Your task to perform on an android device: Search for jbl charge 4 on walmart.com, select the first entry, add it to the cart, then select checkout. Image 0: 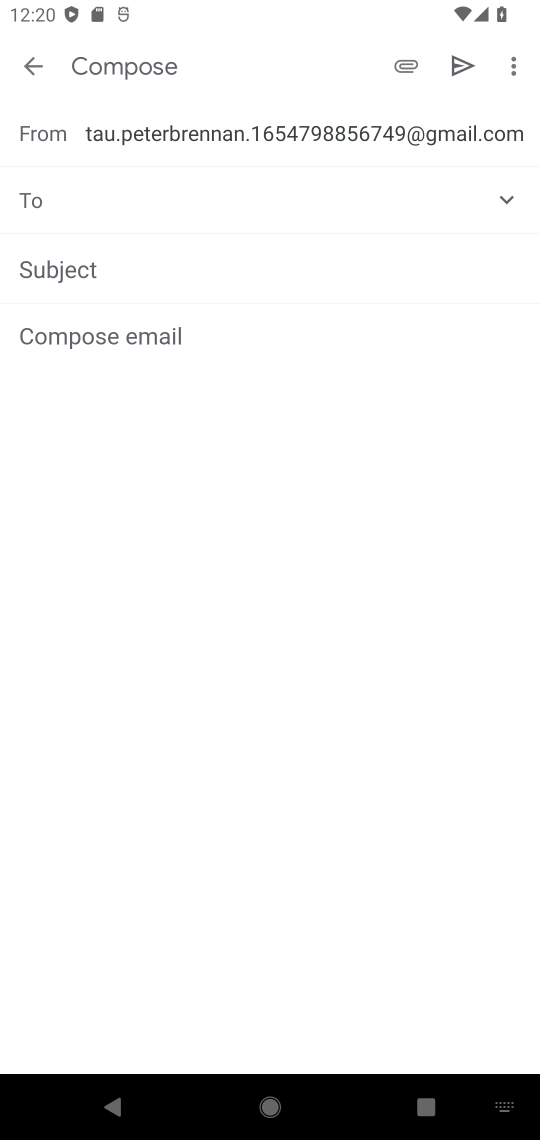
Step 0: press home button
Your task to perform on an android device: Search for jbl charge 4 on walmart.com, select the first entry, add it to the cart, then select checkout. Image 1: 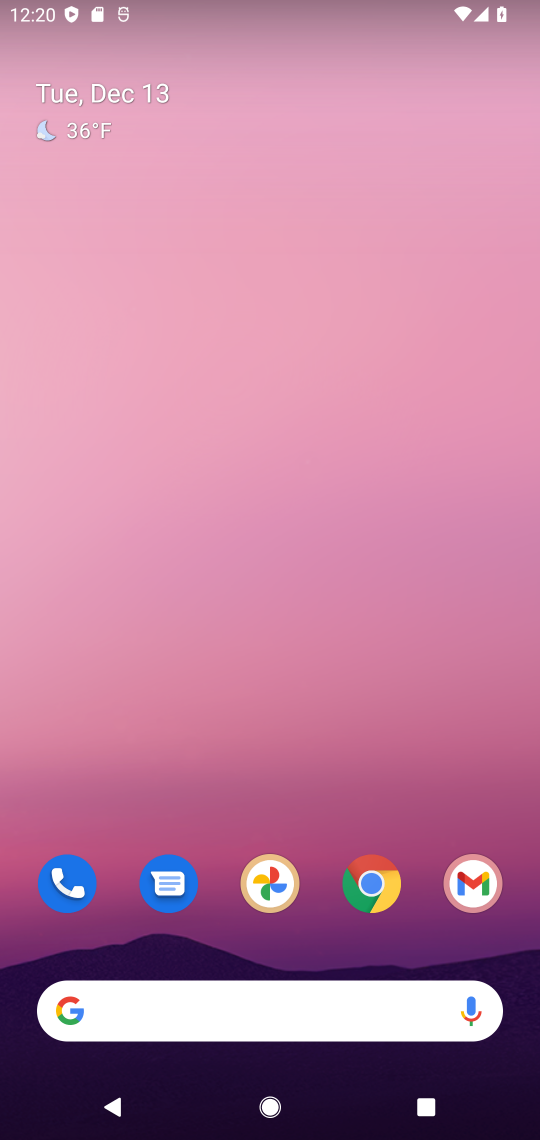
Step 1: drag from (236, 857) to (270, 391)
Your task to perform on an android device: Search for jbl charge 4 on walmart.com, select the first entry, add it to the cart, then select checkout. Image 2: 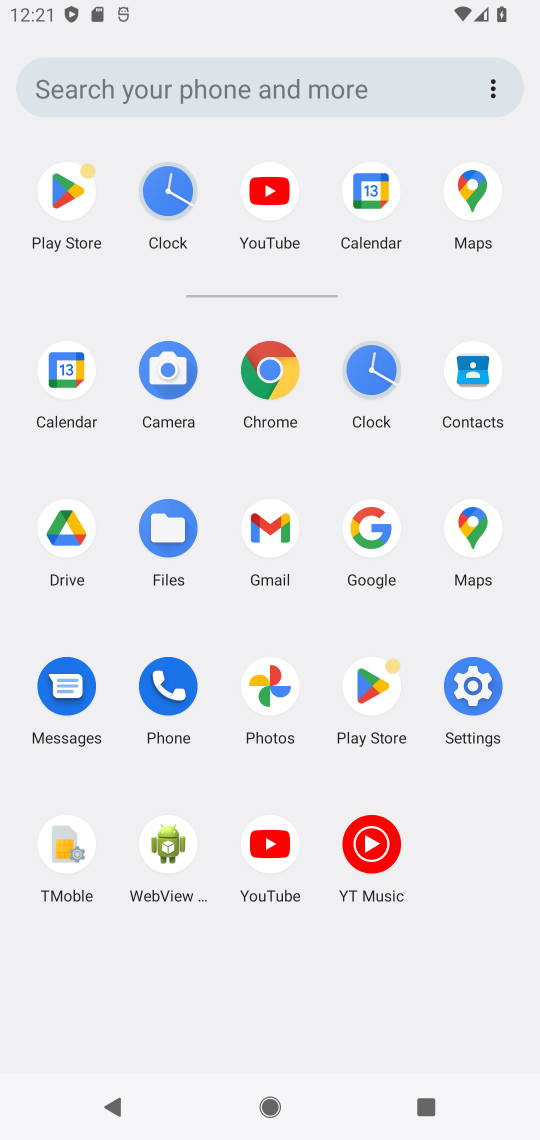
Step 2: click (360, 535)
Your task to perform on an android device: Search for jbl charge 4 on walmart.com, select the first entry, add it to the cart, then select checkout. Image 3: 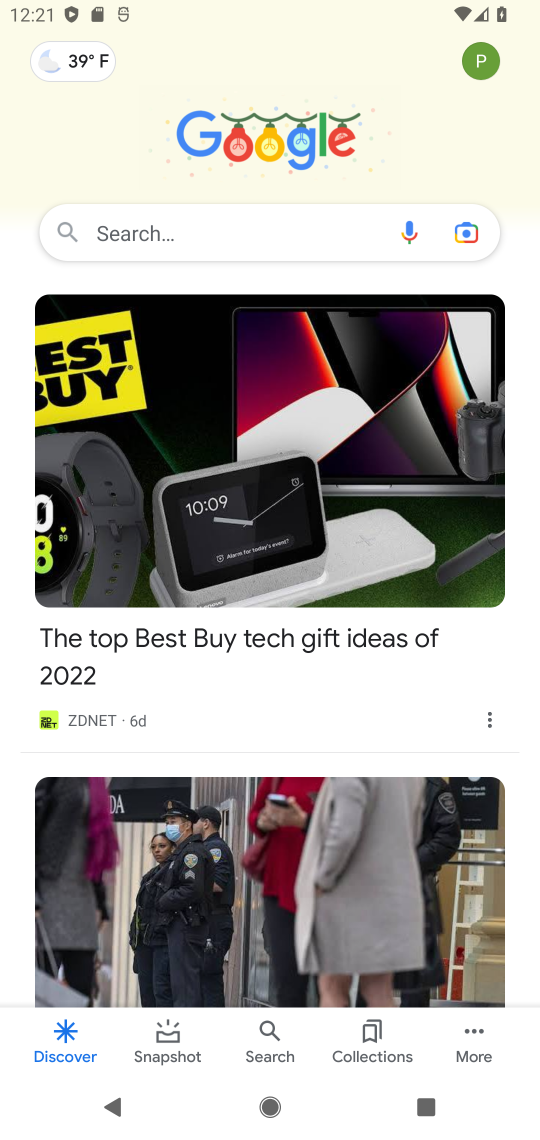
Step 3: click (185, 232)
Your task to perform on an android device: Search for jbl charge 4 on walmart.com, select the first entry, add it to the cart, then select checkout. Image 4: 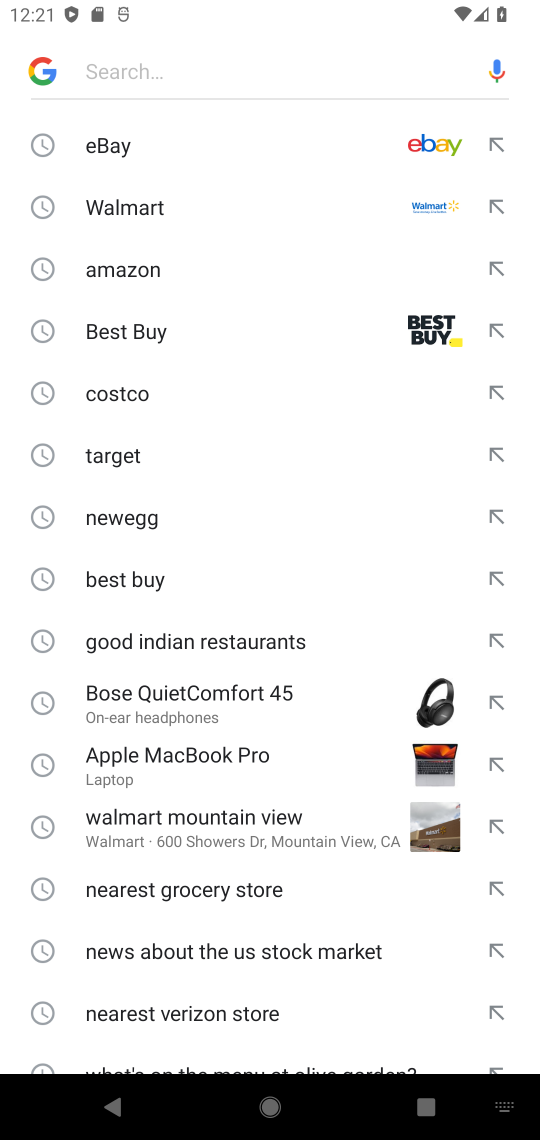
Step 4: type " walmart.com"
Your task to perform on an android device: Search for jbl charge 4 on walmart.com, select the first entry, add it to the cart, then select checkout. Image 5: 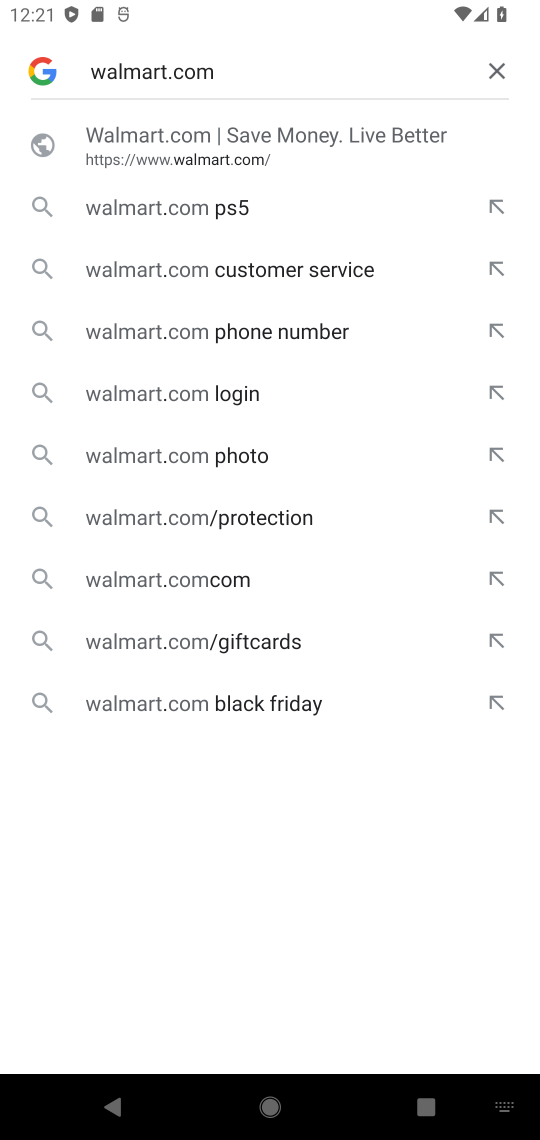
Step 5: click (184, 159)
Your task to perform on an android device: Search for jbl charge 4 on walmart.com, select the first entry, add it to the cart, then select checkout. Image 6: 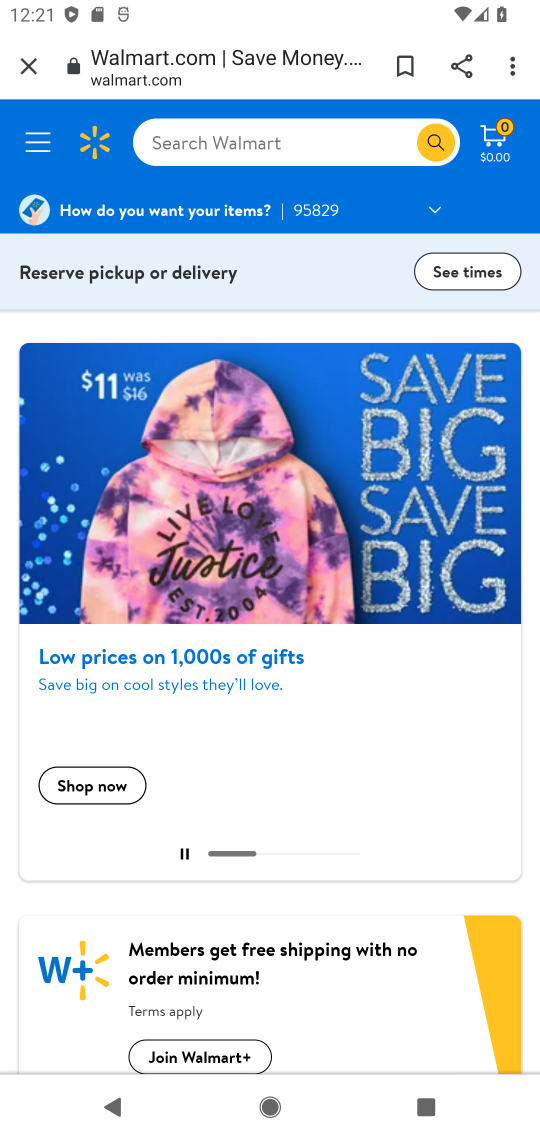
Step 6: click (261, 141)
Your task to perform on an android device: Search for jbl charge 4 on walmart.com, select the first entry, add it to the cart, then select checkout. Image 7: 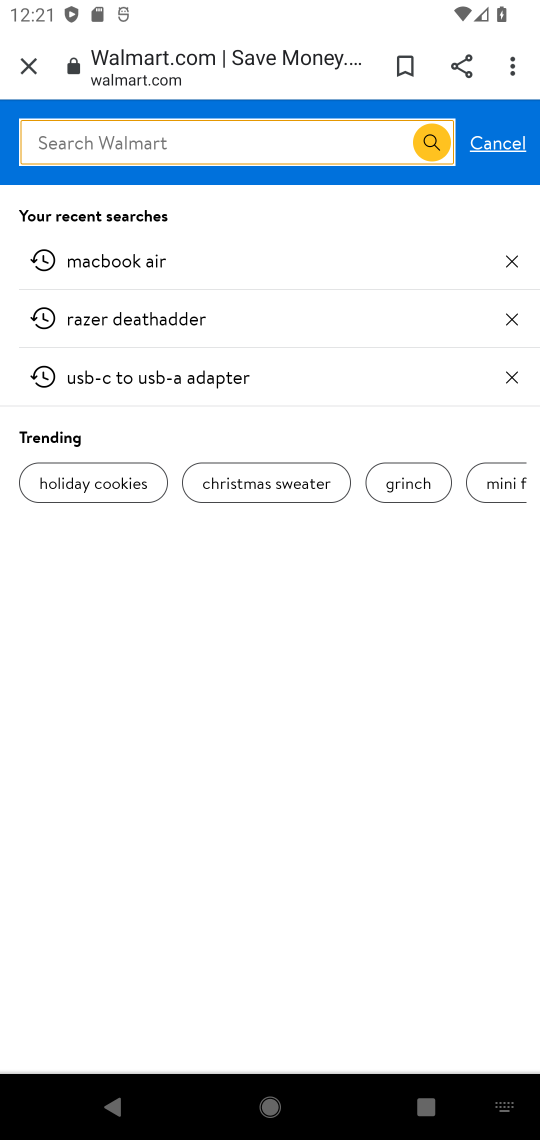
Step 7: type " jbl charge 4 "
Your task to perform on an android device: Search for jbl charge 4 on walmart.com, select the first entry, add it to the cart, then select checkout. Image 8: 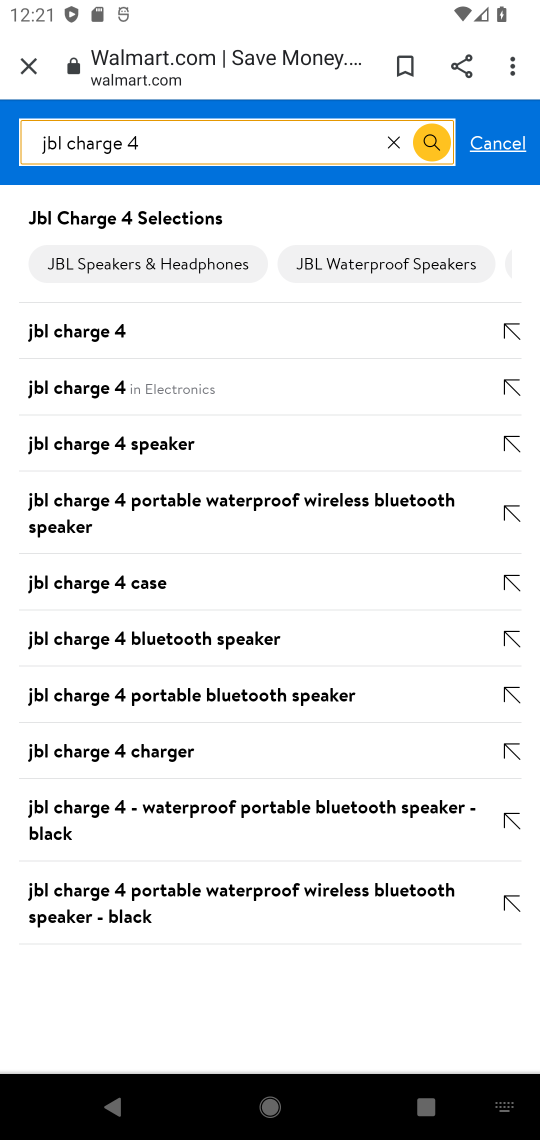
Step 8: click (71, 328)
Your task to perform on an android device: Search for jbl charge 4 on walmart.com, select the first entry, add it to the cart, then select checkout. Image 9: 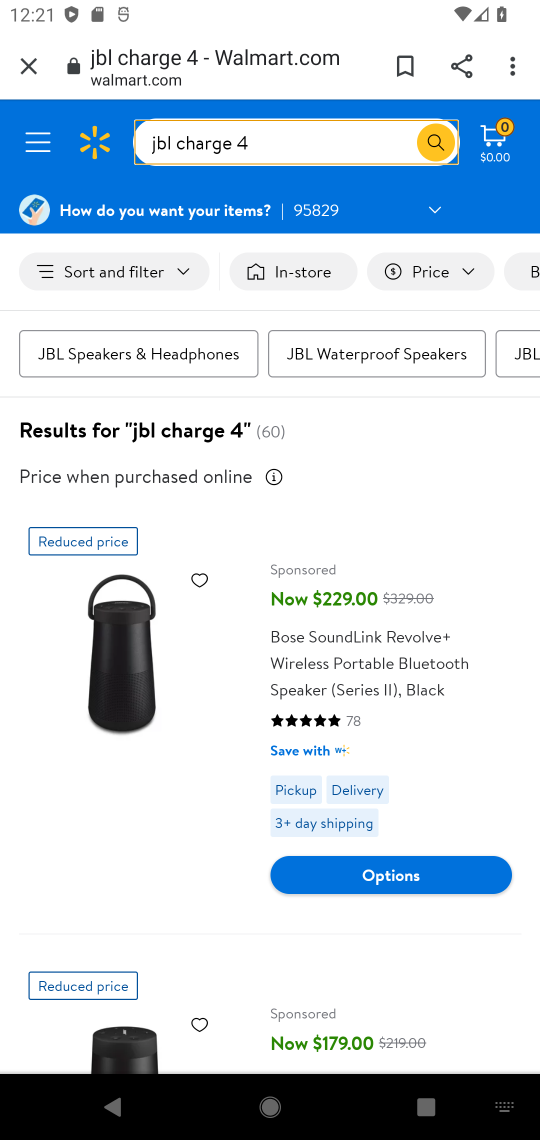
Step 9: click (404, 869)
Your task to perform on an android device: Search for jbl charge 4 on walmart.com, select the first entry, add it to the cart, then select checkout. Image 10: 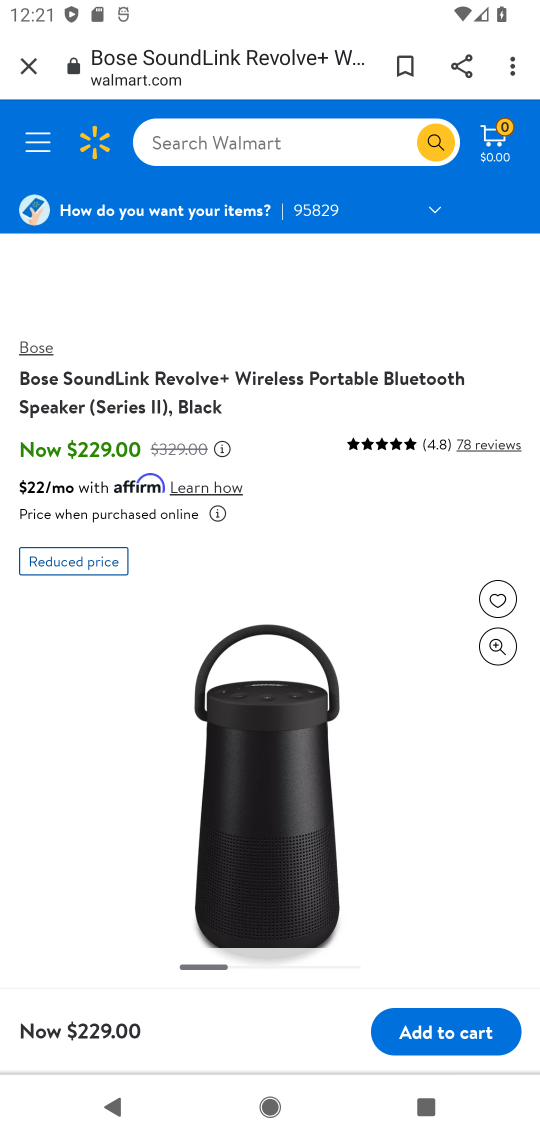
Step 10: click (414, 1042)
Your task to perform on an android device: Search for jbl charge 4 on walmart.com, select the first entry, add it to the cart, then select checkout. Image 11: 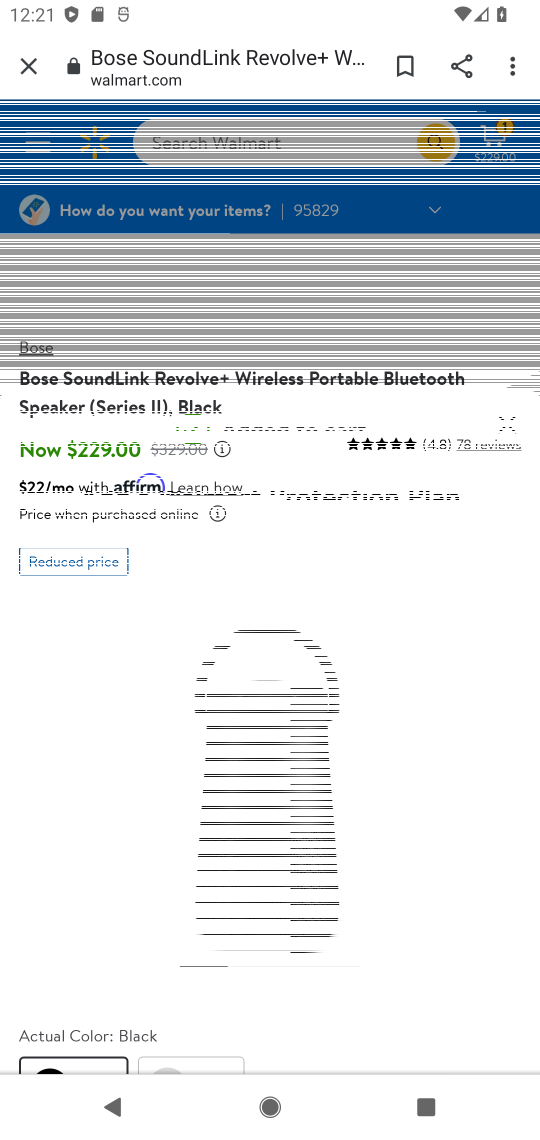
Step 11: task complete